Your task to perform on an android device: What's the weather going to be tomorrow? Image 0: 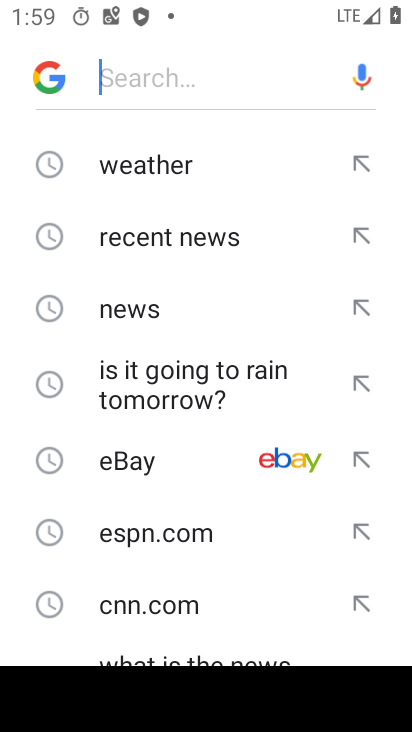
Step 0: click (176, 169)
Your task to perform on an android device: What's the weather going to be tomorrow? Image 1: 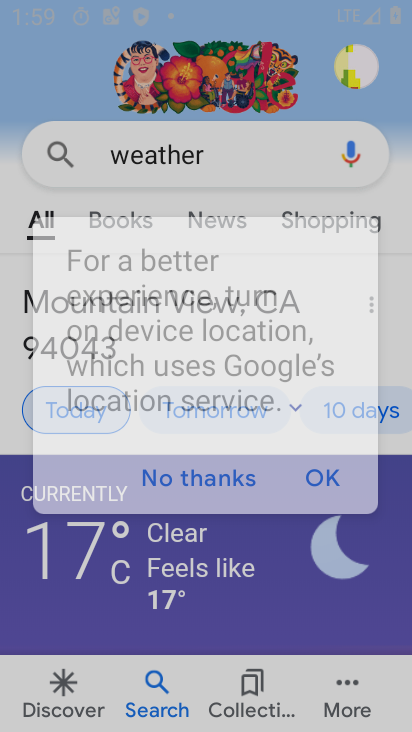
Step 1: click (205, 409)
Your task to perform on an android device: What's the weather going to be tomorrow? Image 2: 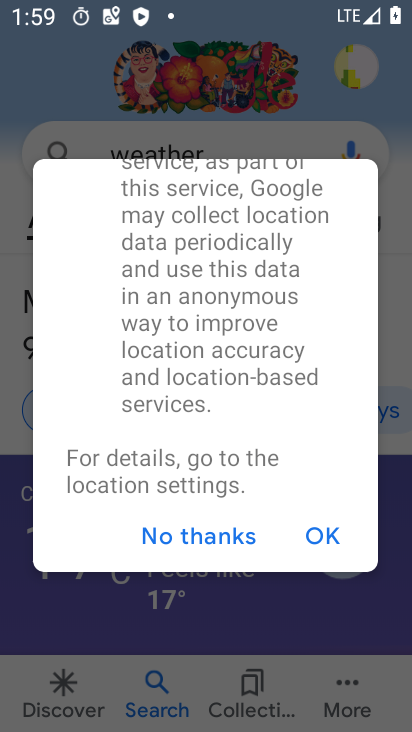
Step 2: click (223, 539)
Your task to perform on an android device: What's the weather going to be tomorrow? Image 3: 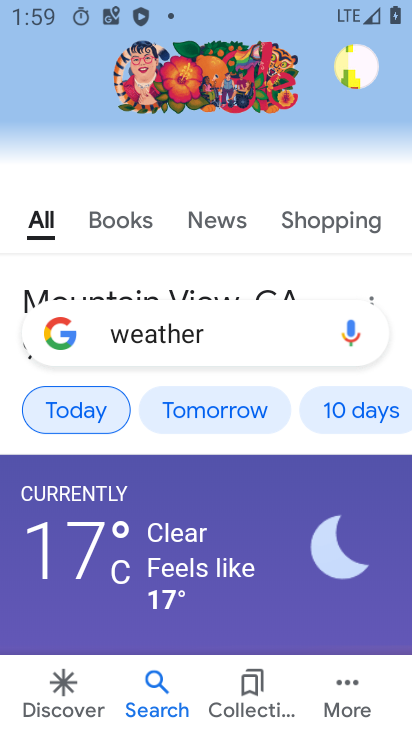
Step 3: click (175, 412)
Your task to perform on an android device: What's the weather going to be tomorrow? Image 4: 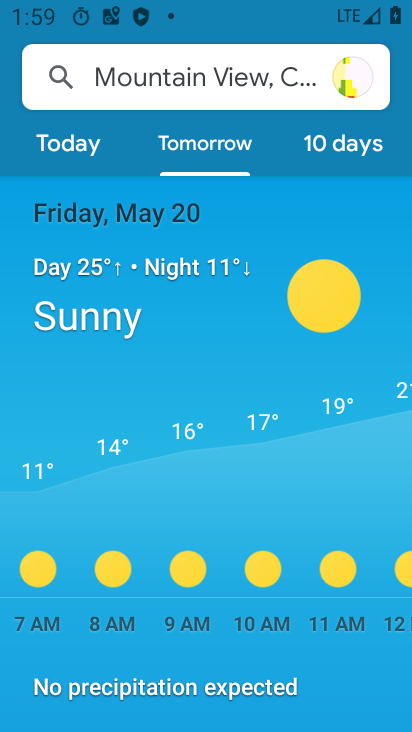
Step 4: task complete